Your task to perform on an android device: Open Chrome and go to settings Image 0: 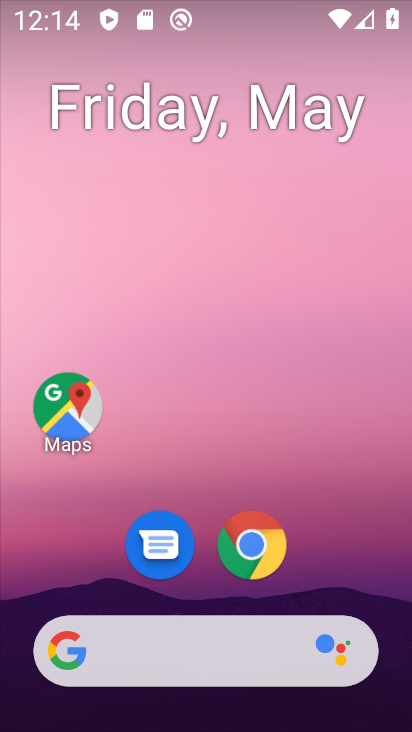
Step 0: drag from (284, 588) to (244, 248)
Your task to perform on an android device: Open Chrome and go to settings Image 1: 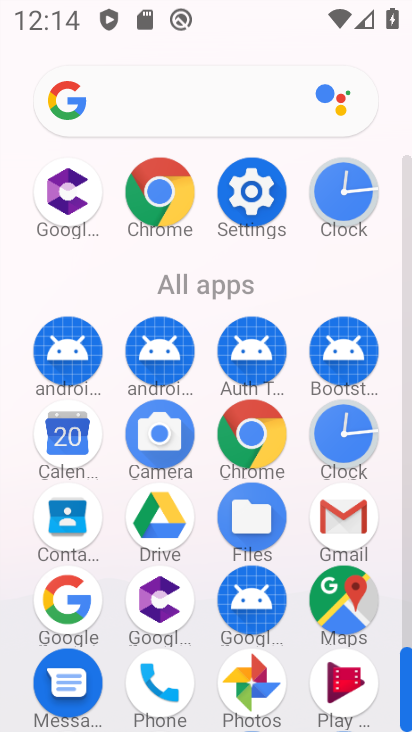
Step 1: click (159, 231)
Your task to perform on an android device: Open Chrome and go to settings Image 2: 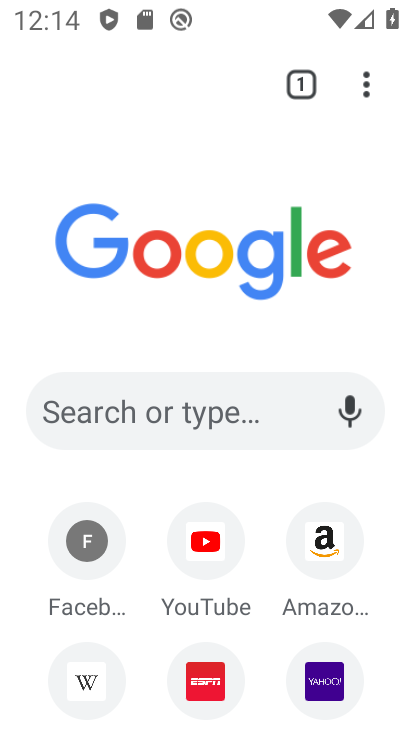
Step 2: click (358, 91)
Your task to perform on an android device: Open Chrome and go to settings Image 3: 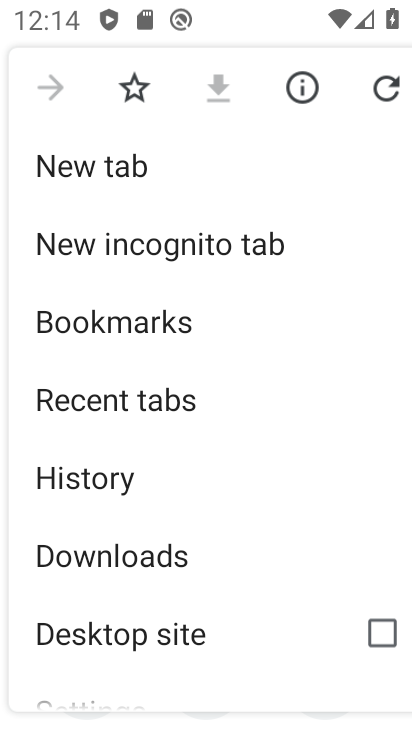
Step 3: drag from (135, 609) to (129, 262)
Your task to perform on an android device: Open Chrome and go to settings Image 4: 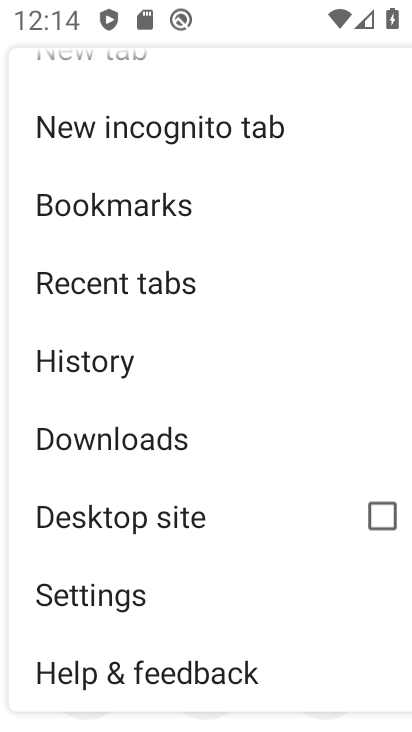
Step 4: click (85, 586)
Your task to perform on an android device: Open Chrome and go to settings Image 5: 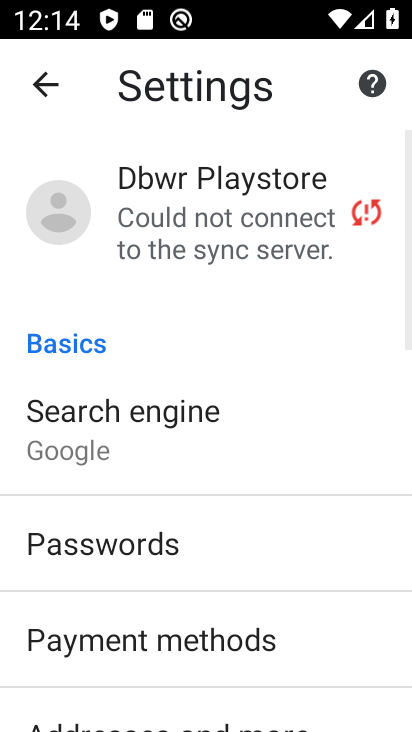
Step 5: task complete